Your task to perform on an android device: Open CNN.com Image 0: 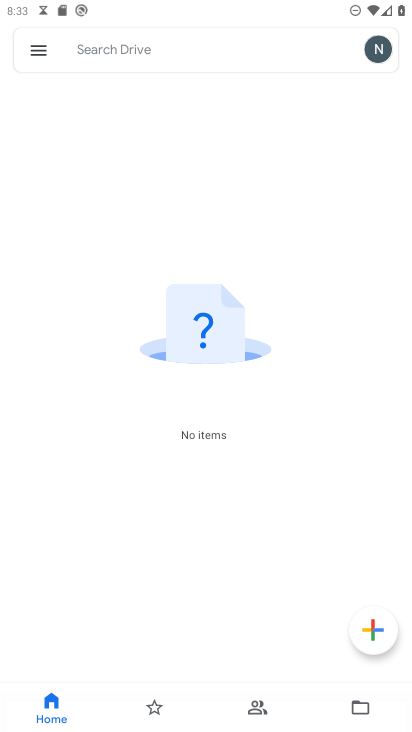
Step 0: press home button
Your task to perform on an android device: Open CNN.com Image 1: 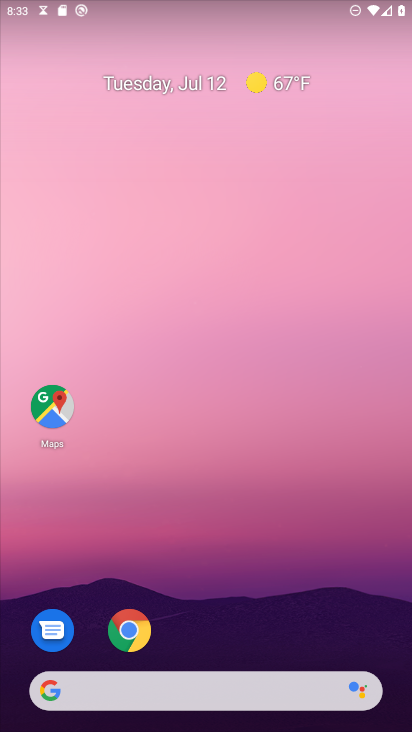
Step 1: drag from (257, 629) to (202, 7)
Your task to perform on an android device: Open CNN.com Image 2: 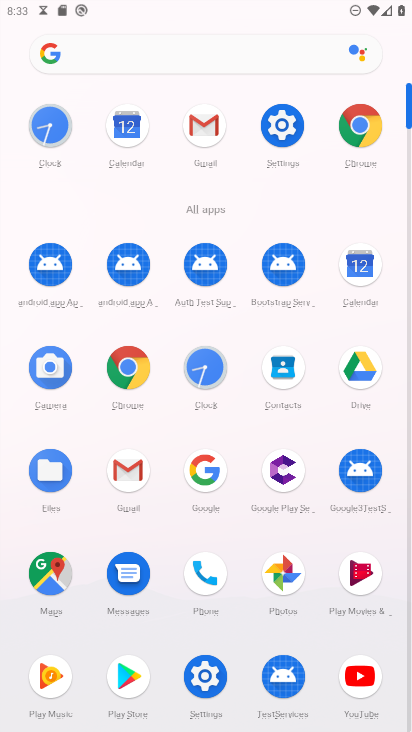
Step 2: click (356, 111)
Your task to perform on an android device: Open CNN.com Image 3: 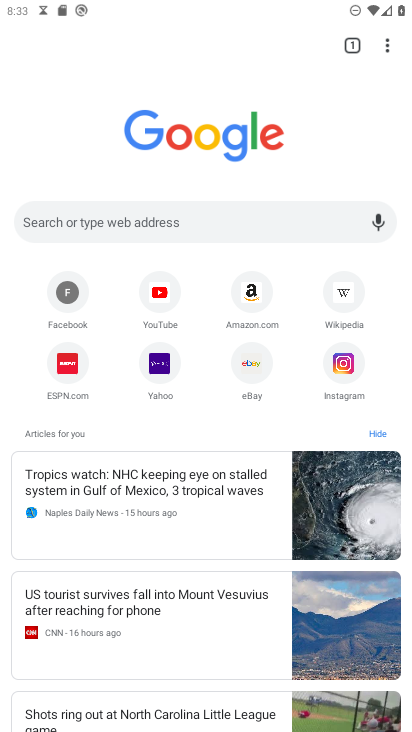
Step 3: click (109, 226)
Your task to perform on an android device: Open CNN.com Image 4: 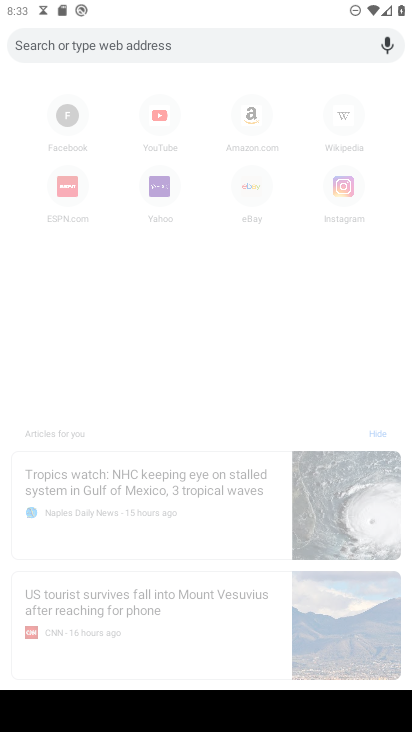
Step 4: type "cnn.com"
Your task to perform on an android device: Open CNN.com Image 5: 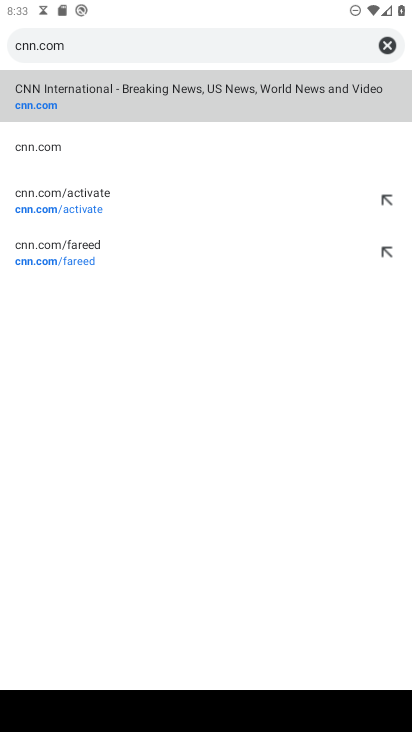
Step 5: click (130, 106)
Your task to perform on an android device: Open CNN.com Image 6: 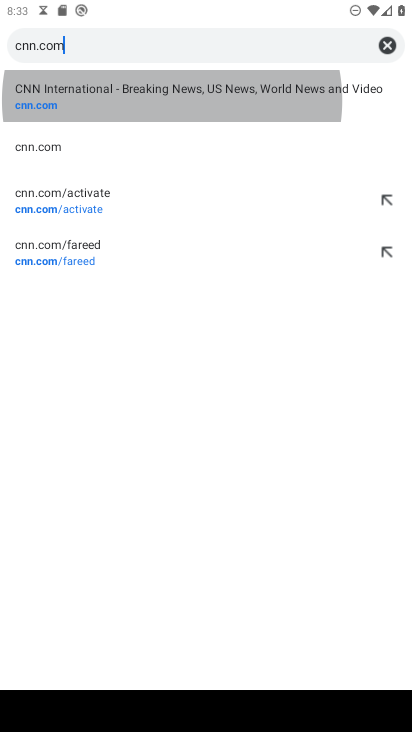
Step 6: click (130, 106)
Your task to perform on an android device: Open CNN.com Image 7: 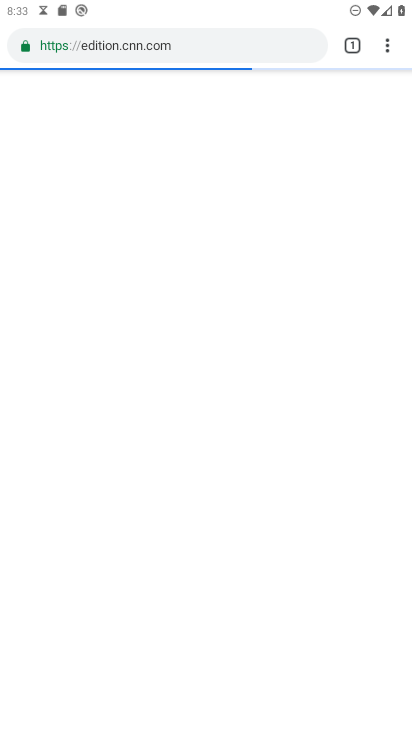
Step 7: task complete